Your task to perform on an android device: search for starred emails in the gmail app Image 0: 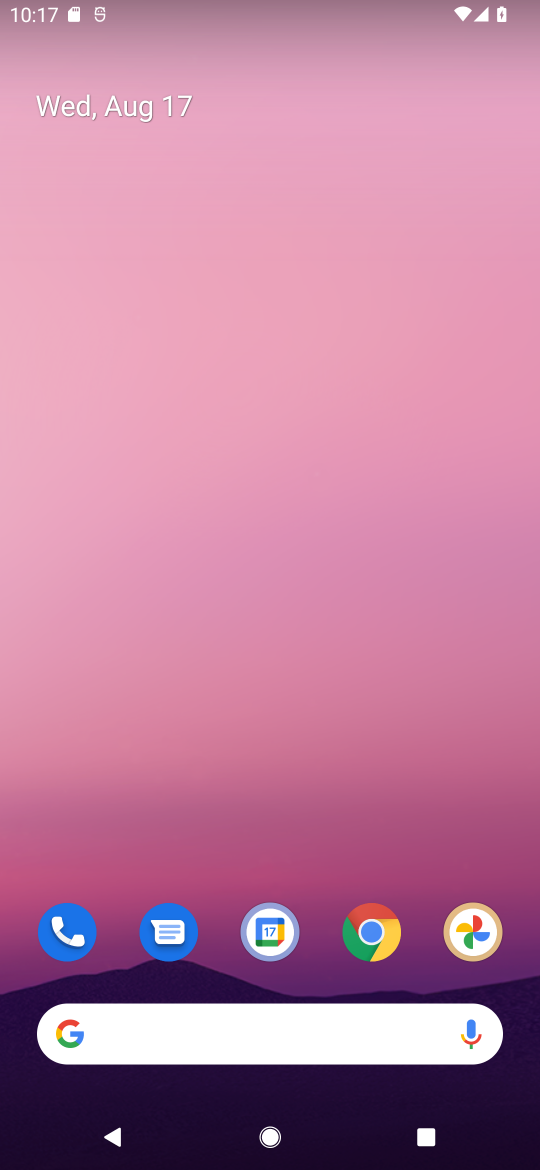
Step 0: drag from (330, 968) to (330, 119)
Your task to perform on an android device: search for starred emails in the gmail app Image 1: 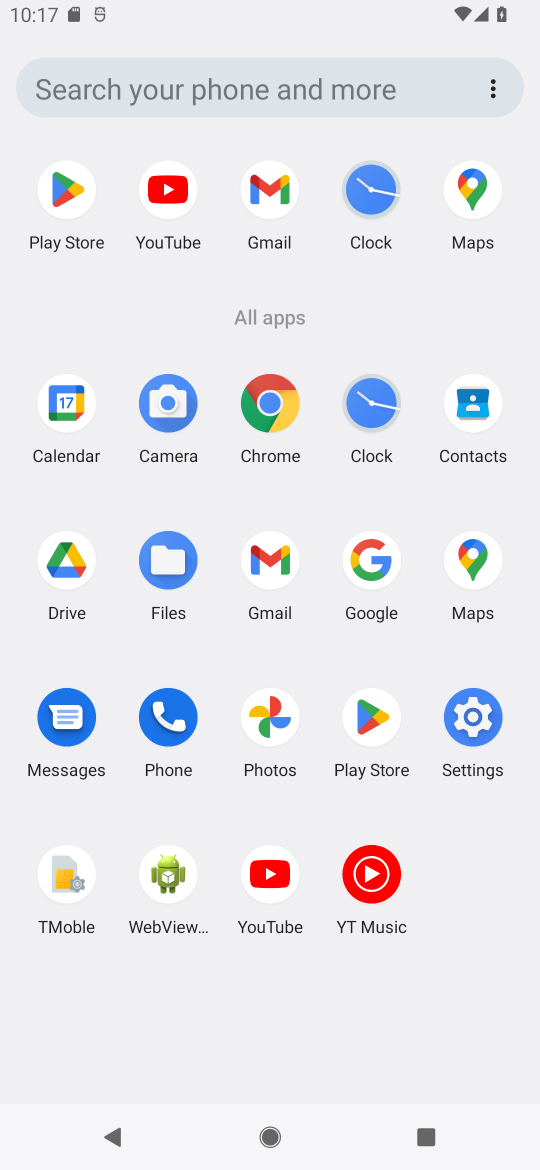
Step 1: click (270, 561)
Your task to perform on an android device: search for starred emails in the gmail app Image 2: 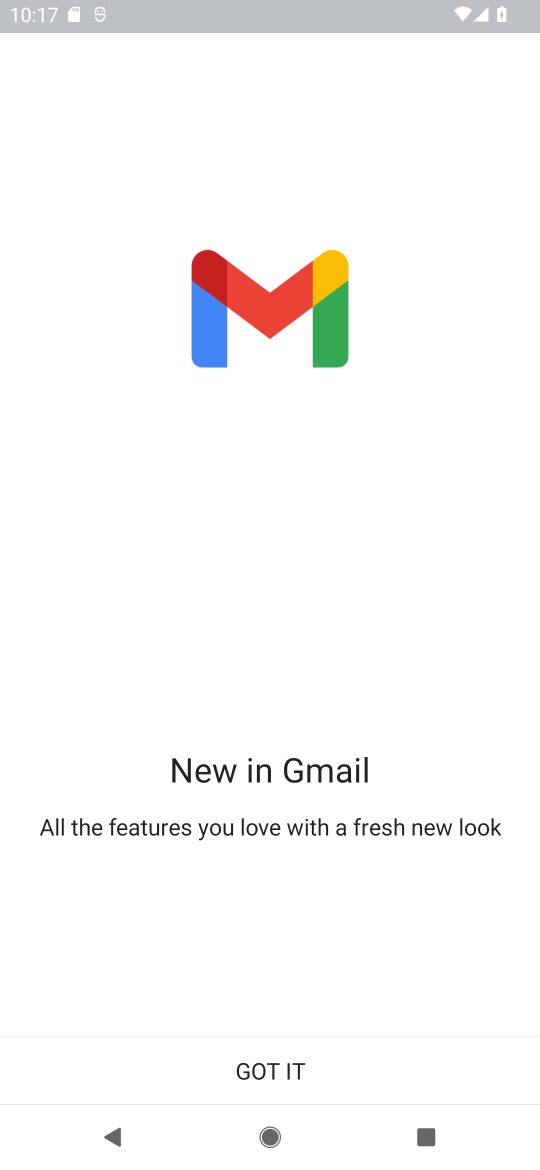
Step 2: click (297, 1060)
Your task to perform on an android device: search for starred emails in the gmail app Image 3: 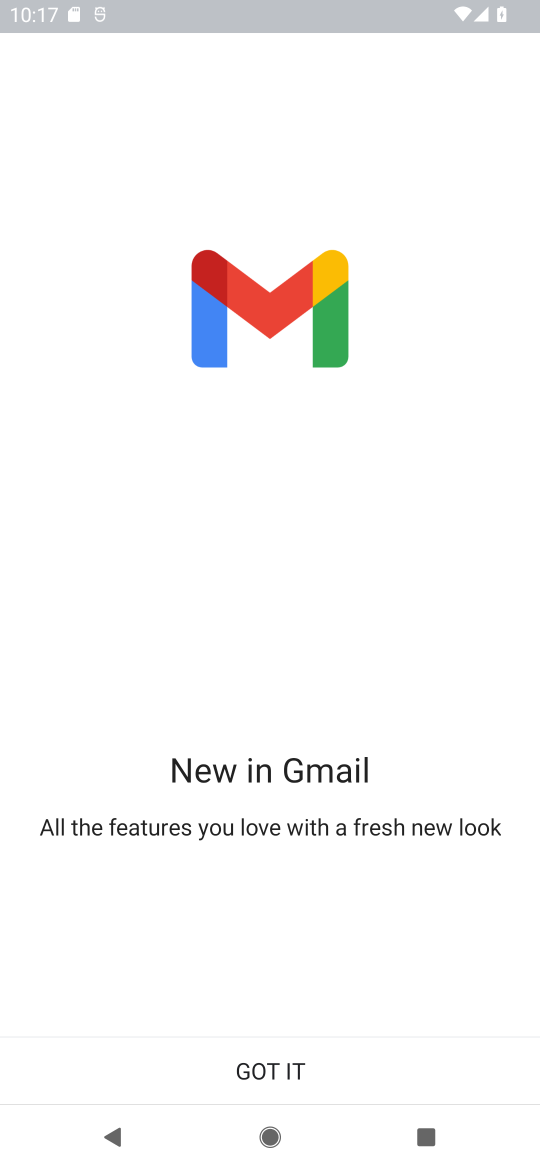
Step 3: click (272, 1065)
Your task to perform on an android device: search for starred emails in the gmail app Image 4: 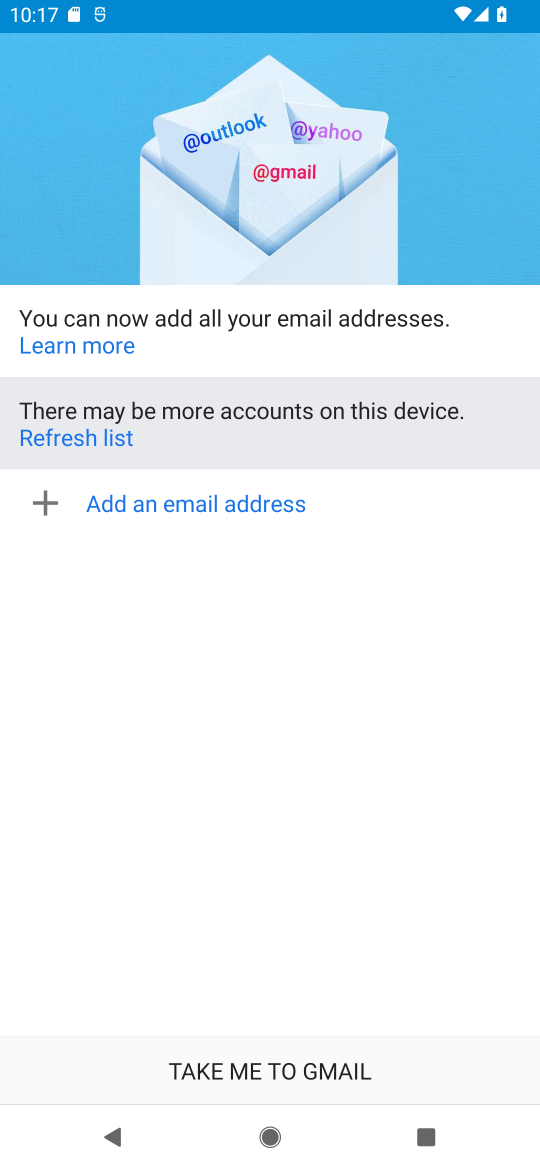
Step 4: click (304, 1061)
Your task to perform on an android device: search for starred emails in the gmail app Image 5: 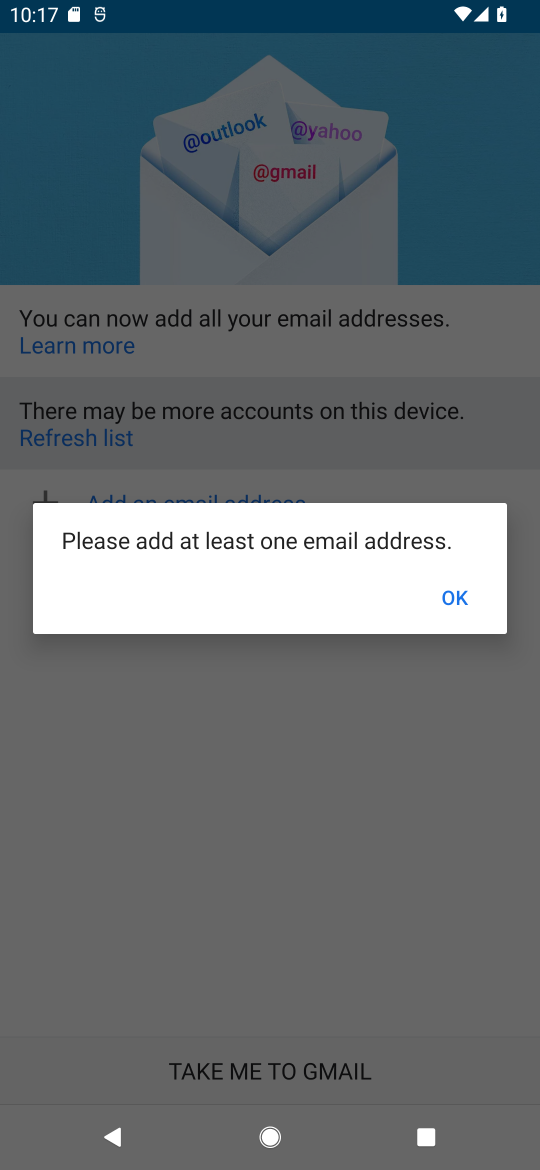
Step 5: click (466, 591)
Your task to perform on an android device: search for starred emails in the gmail app Image 6: 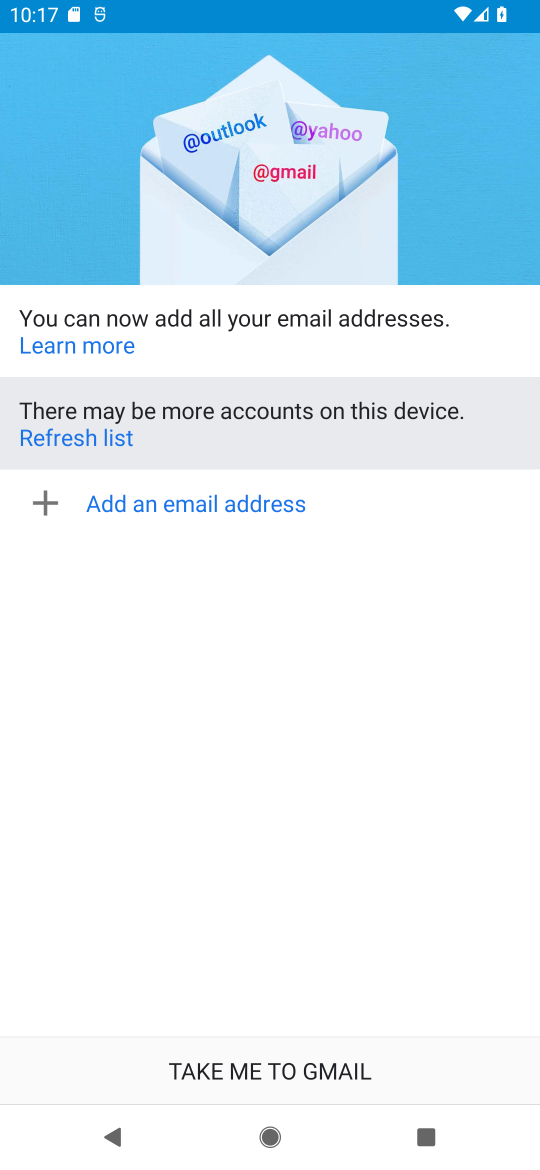
Step 6: task complete